Your task to perform on an android device: toggle notification dots Image 0: 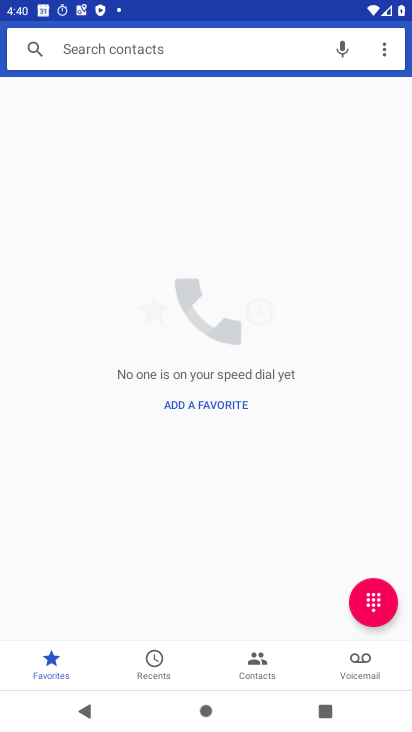
Step 0: press home button
Your task to perform on an android device: toggle notification dots Image 1: 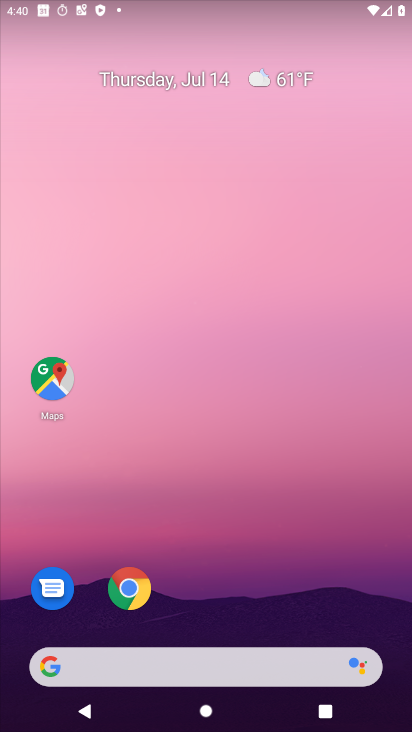
Step 1: drag from (230, 669) to (410, 158)
Your task to perform on an android device: toggle notification dots Image 2: 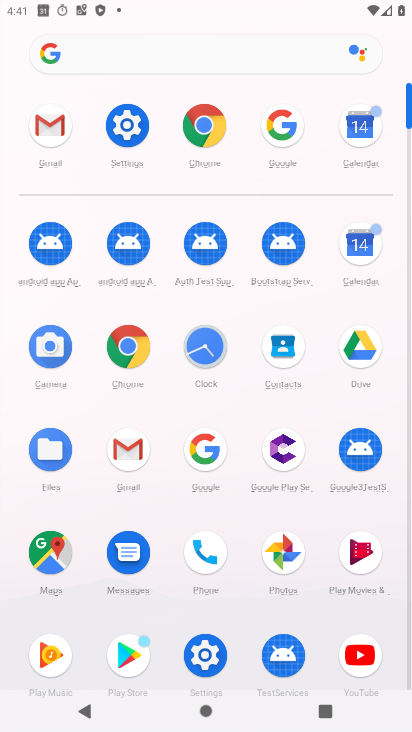
Step 2: click (124, 125)
Your task to perform on an android device: toggle notification dots Image 3: 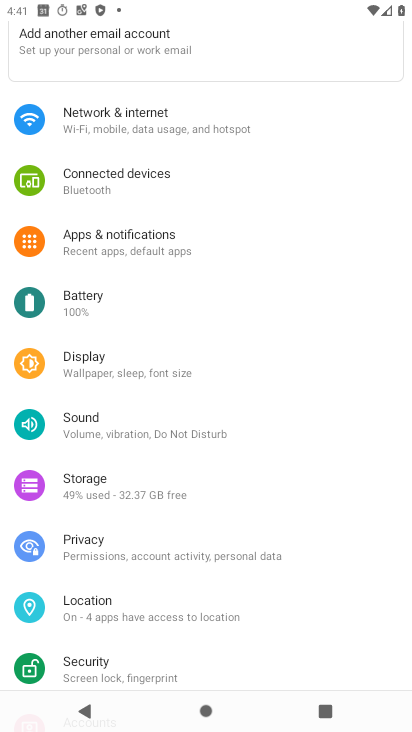
Step 3: click (159, 253)
Your task to perform on an android device: toggle notification dots Image 4: 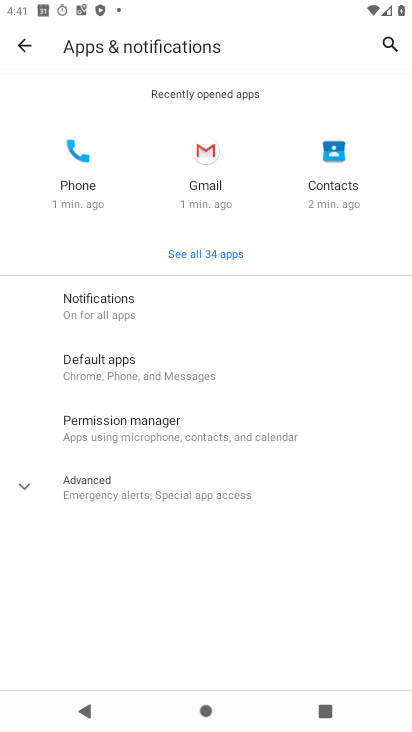
Step 4: click (120, 310)
Your task to perform on an android device: toggle notification dots Image 5: 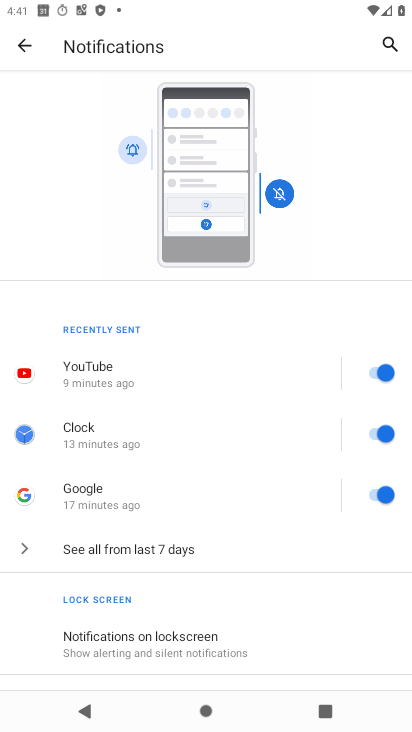
Step 5: drag from (149, 589) to (229, 439)
Your task to perform on an android device: toggle notification dots Image 6: 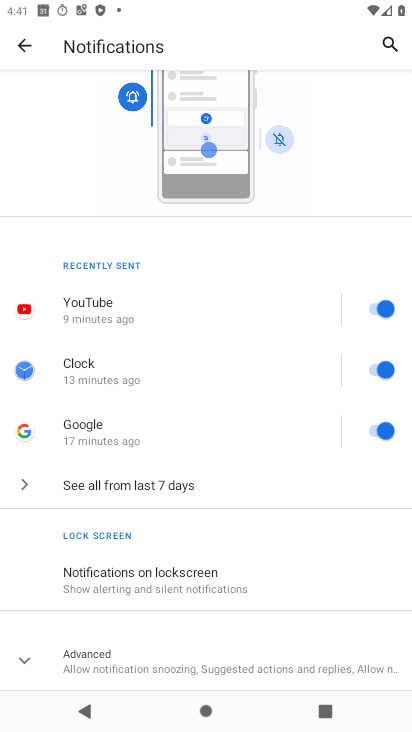
Step 6: click (103, 657)
Your task to perform on an android device: toggle notification dots Image 7: 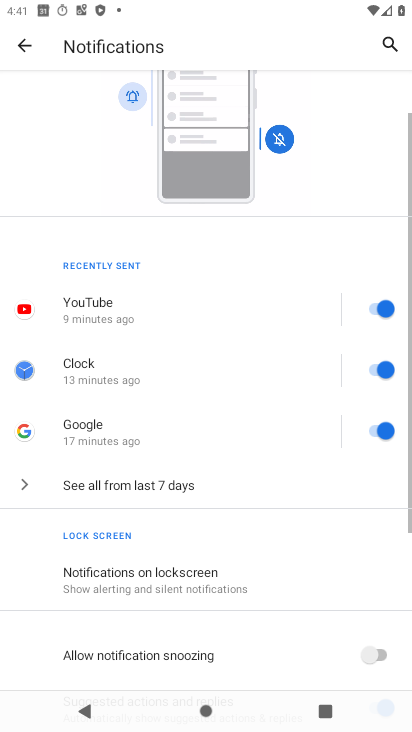
Step 7: drag from (139, 624) to (289, 397)
Your task to perform on an android device: toggle notification dots Image 8: 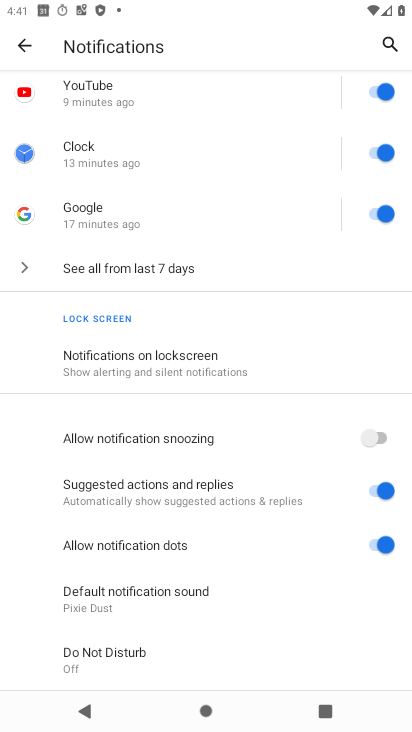
Step 8: click (386, 544)
Your task to perform on an android device: toggle notification dots Image 9: 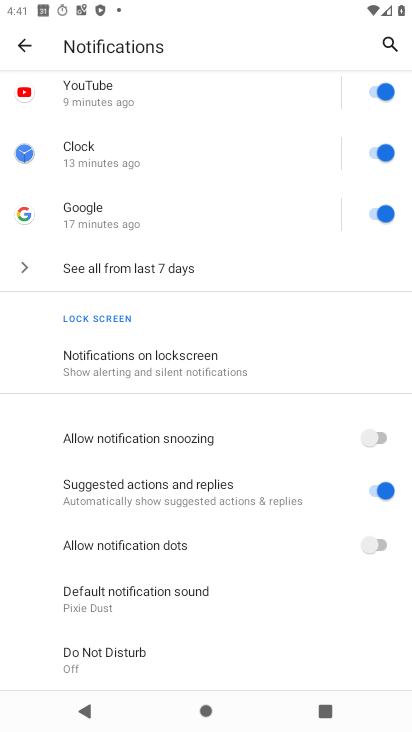
Step 9: task complete